Your task to perform on an android device: Is it going to rain today? Image 0: 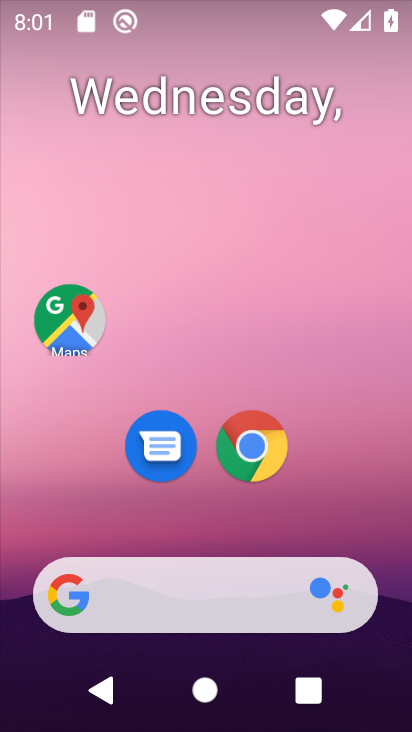
Step 0: press home button
Your task to perform on an android device: Is it going to rain today? Image 1: 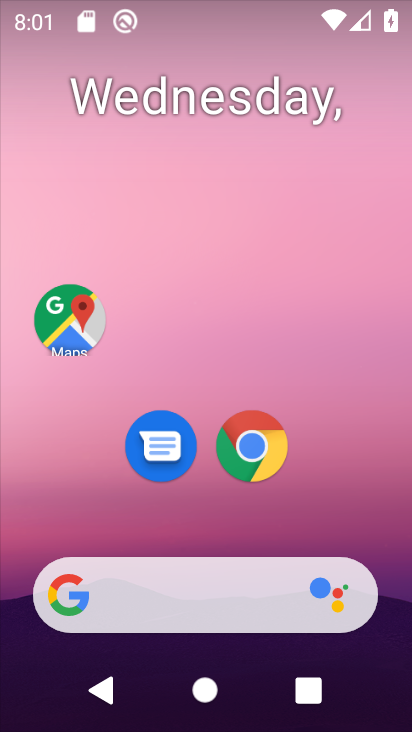
Step 1: drag from (9, 216) to (410, 246)
Your task to perform on an android device: Is it going to rain today? Image 2: 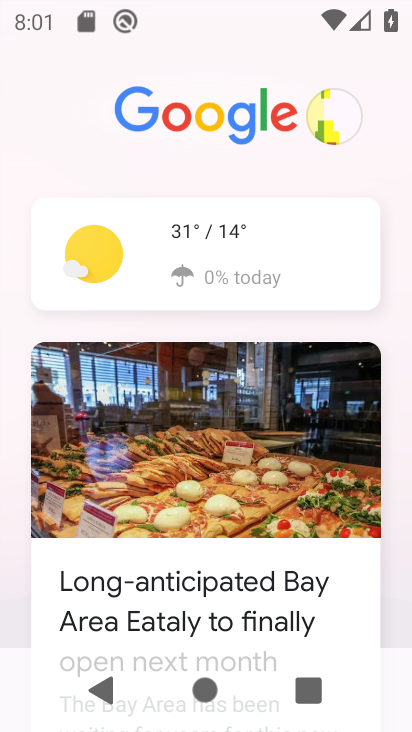
Step 2: click (228, 256)
Your task to perform on an android device: Is it going to rain today? Image 3: 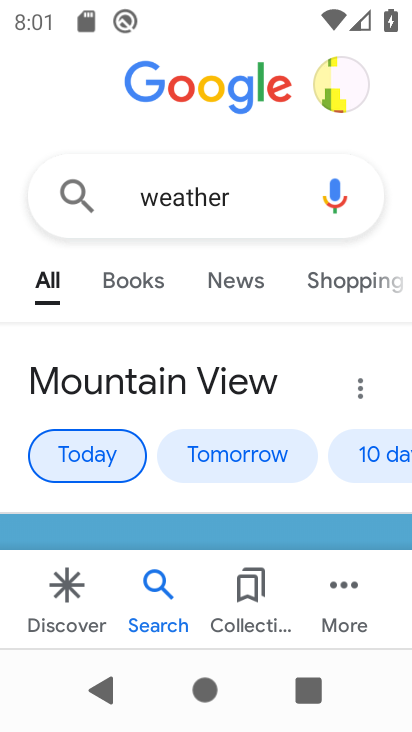
Step 3: task complete